Your task to perform on an android device: Open my contact list Image 0: 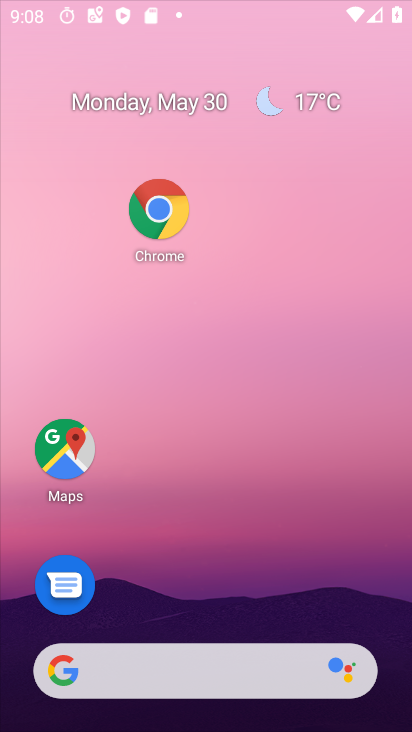
Step 0: click (281, 52)
Your task to perform on an android device: Open my contact list Image 1: 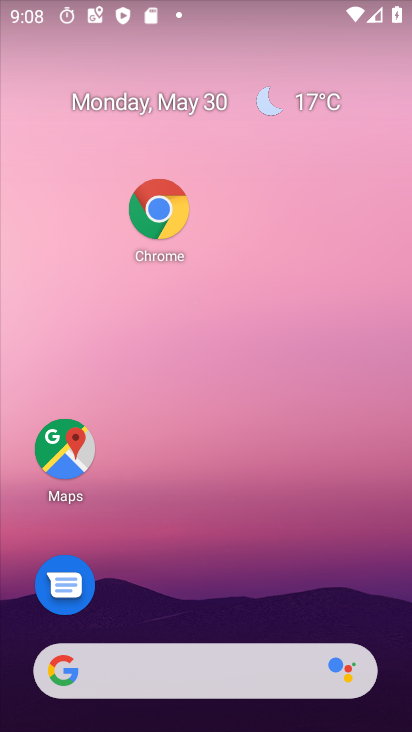
Step 1: drag from (215, 578) to (211, 144)
Your task to perform on an android device: Open my contact list Image 2: 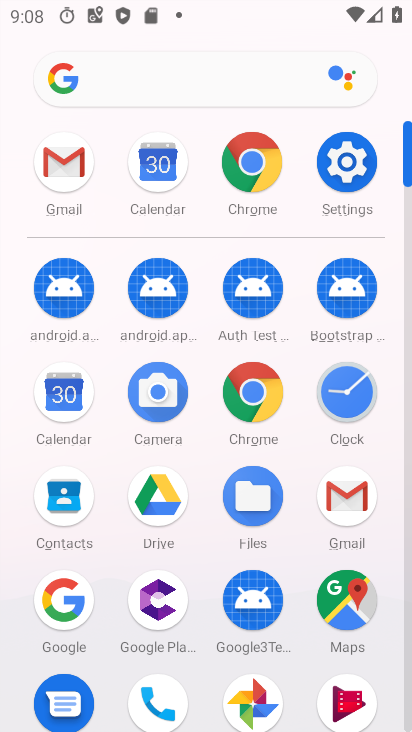
Step 2: click (57, 495)
Your task to perform on an android device: Open my contact list Image 3: 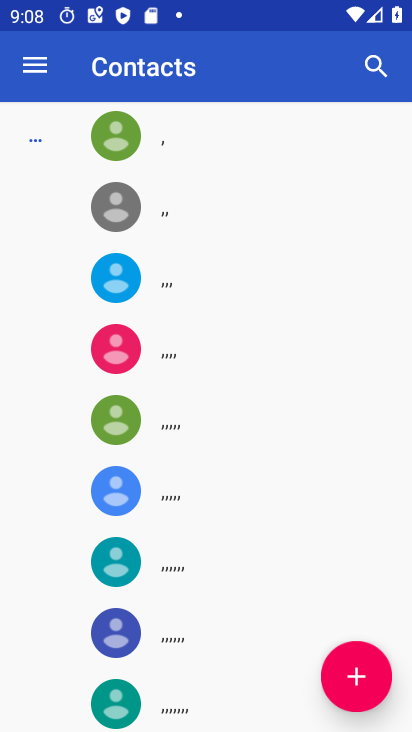
Step 3: drag from (252, 627) to (380, 160)
Your task to perform on an android device: Open my contact list Image 4: 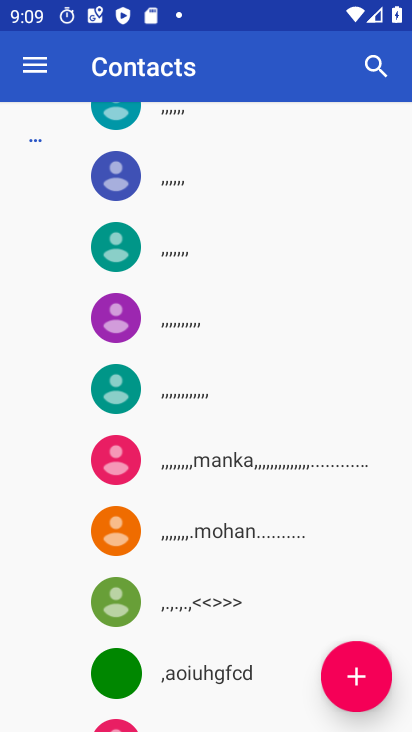
Step 4: click (386, 71)
Your task to perform on an android device: Open my contact list Image 5: 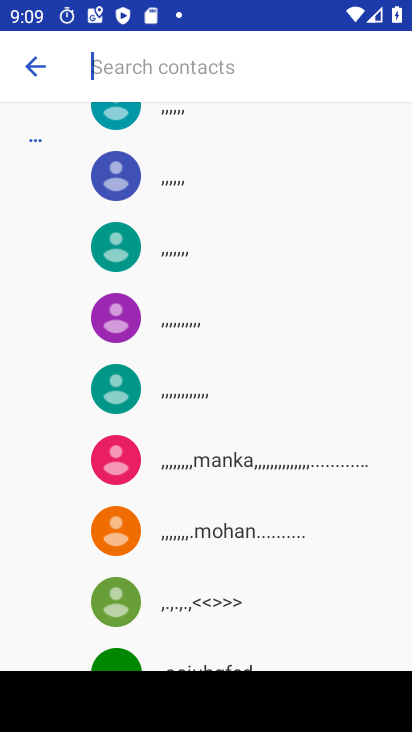
Step 5: task complete